Your task to perform on an android device: Go to Yahoo.com Image 0: 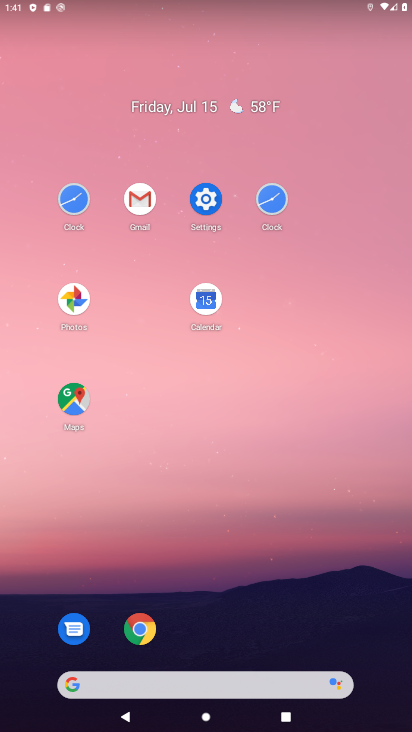
Step 0: click (144, 623)
Your task to perform on an android device: Go to Yahoo.com Image 1: 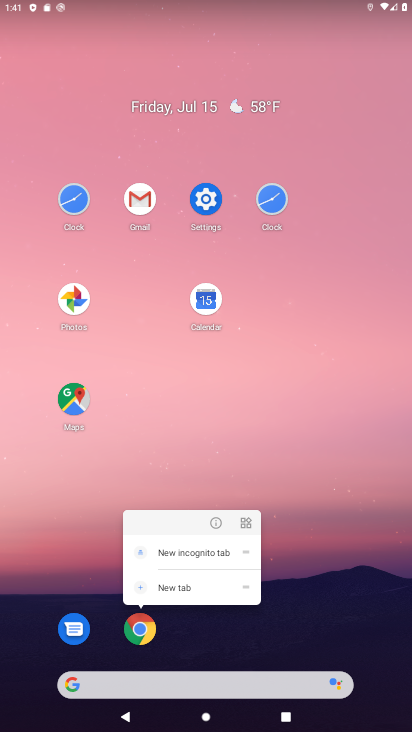
Step 1: click (144, 623)
Your task to perform on an android device: Go to Yahoo.com Image 2: 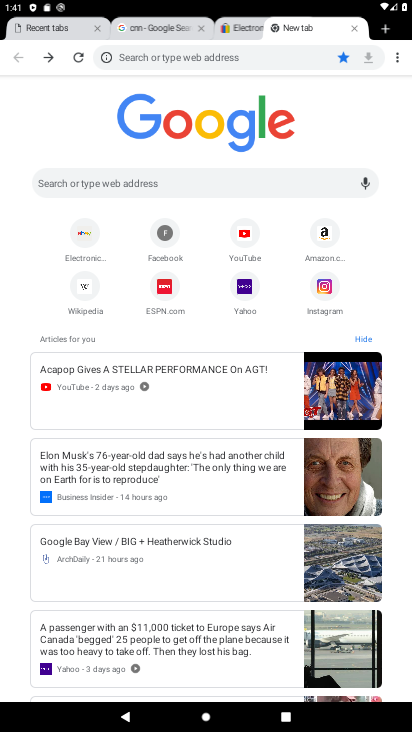
Step 2: click (250, 289)
Your task to perform on an android device: Go to Yahoo.com Image 3: 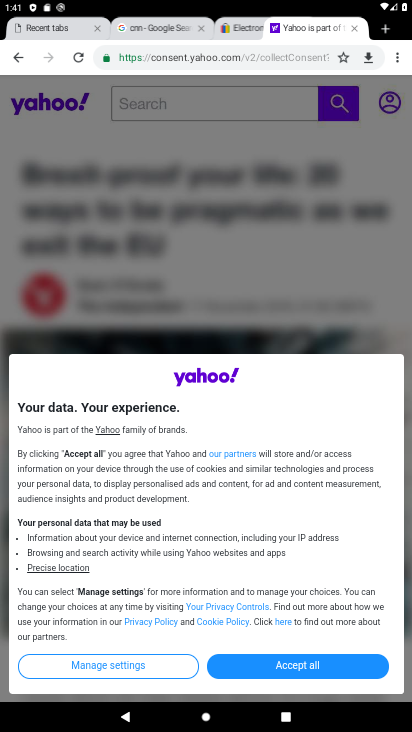
Step 3: task complete